Your task to perform on an android device: What's the weather going to be tomorrow? Image 0: 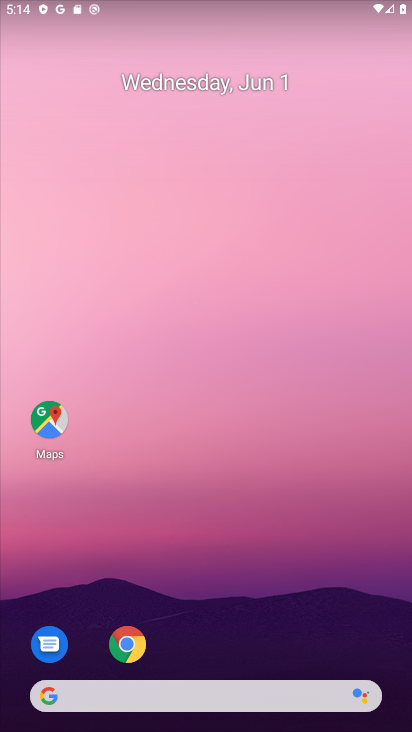
Step 0: drag from (319, 603) to (365, 207)
Your task to perform on an android device: What's the weather going to be tomorrow? Image 1: 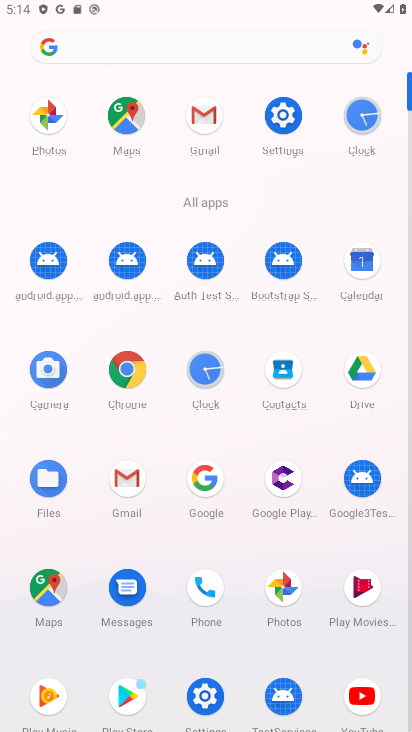
Step 1: click (37, 55)
Your task to perform on an android device: What's the weather going to be tomorrow? Image 2: 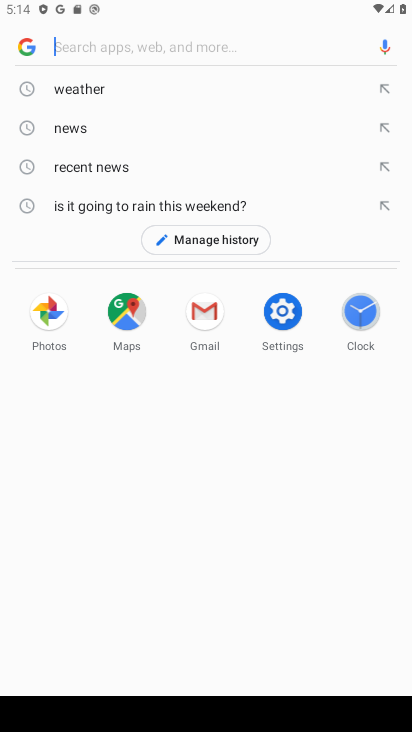
Step 2: click (37, 55)
Your task to perform on an android device: What's the weather going to be tomorrow? Image 3: 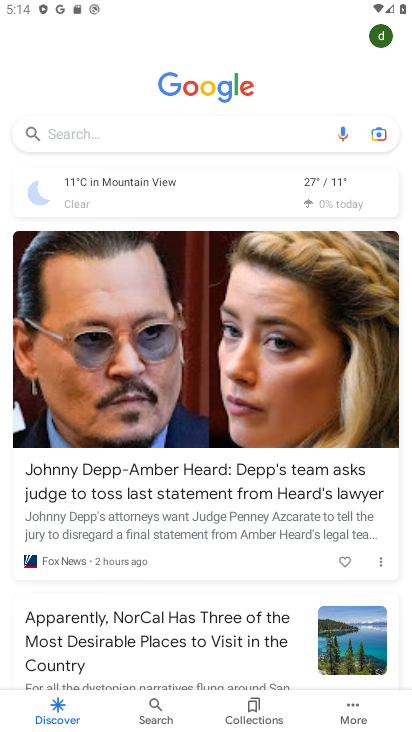
Step 3: click (128, 197)
Your task to perform on an android device: What's the weather going to be tomorrow? Image 4: 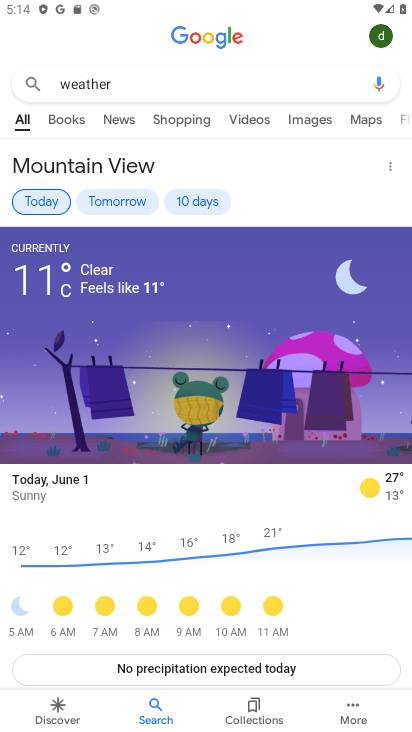
Step 4: click (115, 213)
Your task to perform on an android device: What's the weather going to be tomorrow? Image 5: 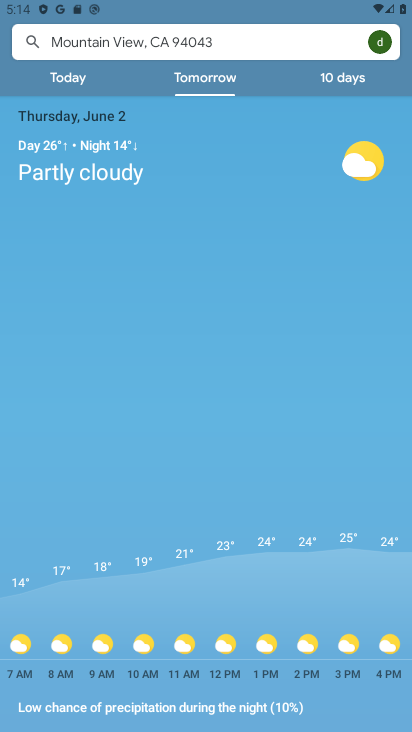
Step 5: task complete